Your task to perform on an android device: Go to Wikipedia Image 0: 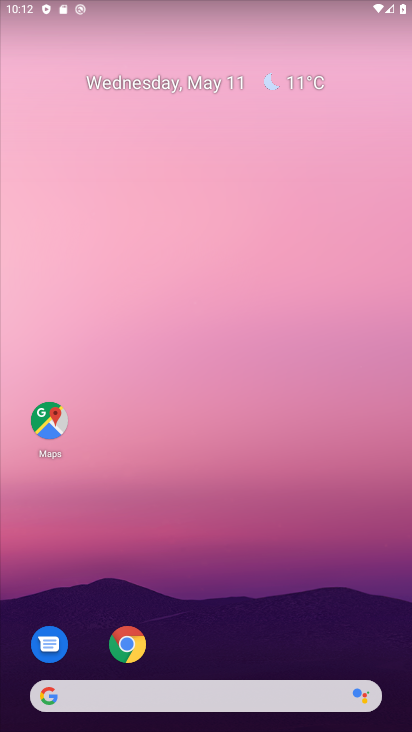
Step 0: click (126, 634)
Your task to perform on an android device: Go to Wikipedia Image 1: 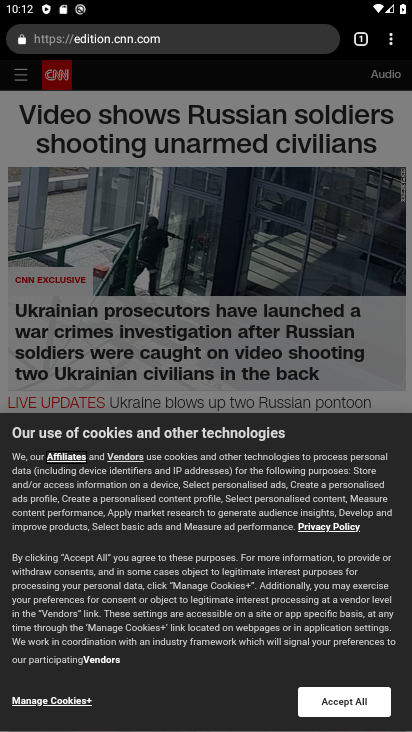
Step 1: click (120, 42)
Your task to perform on an android device: Go to Wikipedia Image 2: 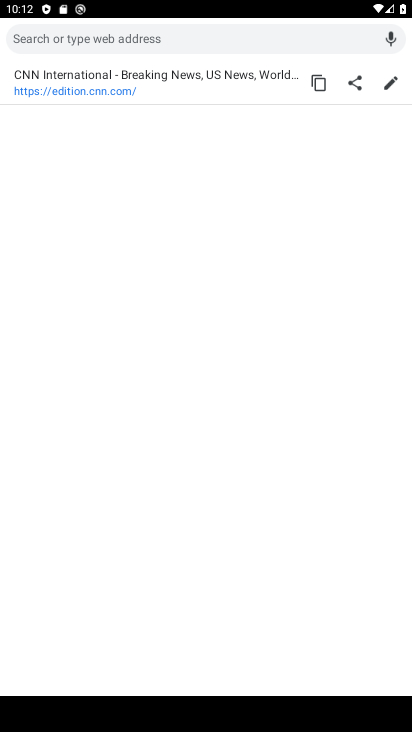
Step 2: type "wikipedia"
Your task to perform on an android device: Go to Wikipedia Image 3: 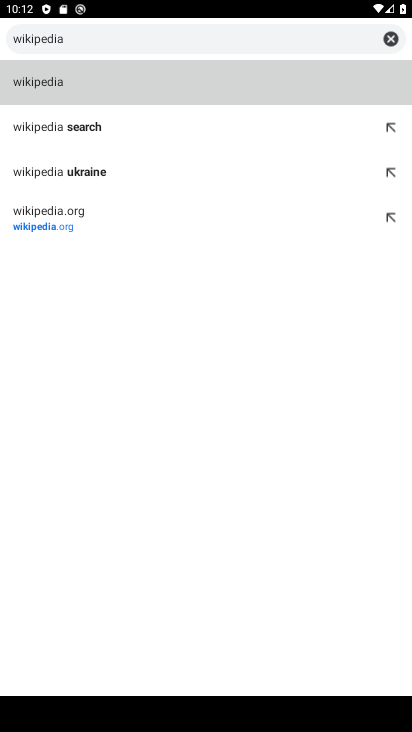
Step 3: click (37, 82)
Your task to perform on an android device: Go to Wikipedia Image 4: 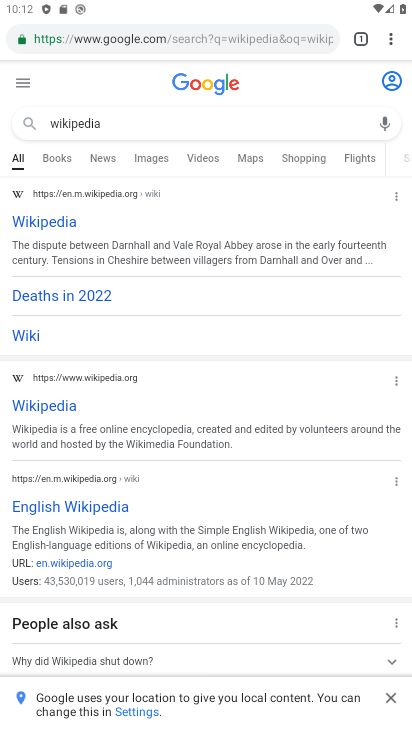
Step 4: click (38, 229)
Your task to perform on an android device: Go to Wikipedia Image 5: 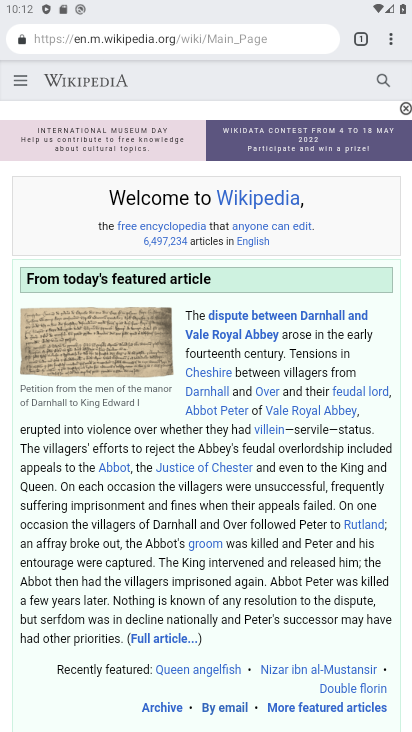
Step 5: task complete